Your task to perform on an android device: Go to ESPN.com Image 0: 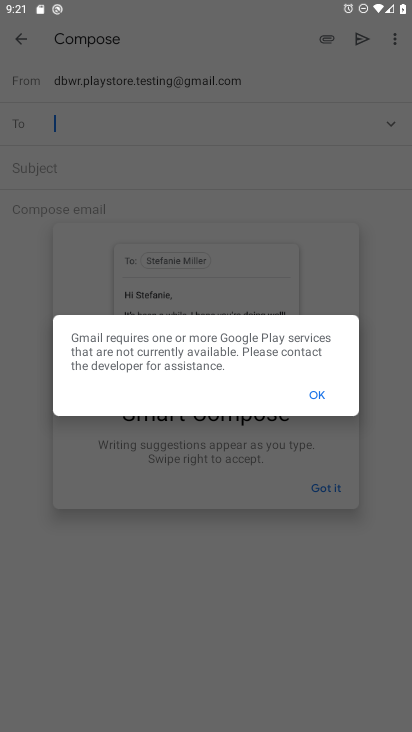
Step 0: press home button
Your task to perform on an android device: Go to ESPN.com Image 1: 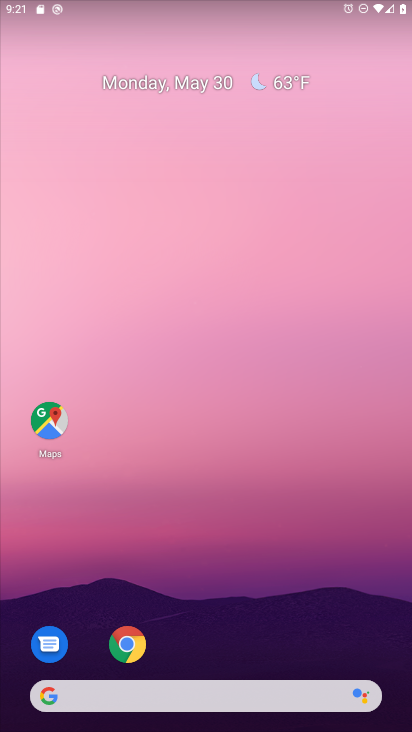
Step 1: drag from (193, 658) to (210, 106)
Your task to perform on an android device: Go to ESPN.com Image 2: 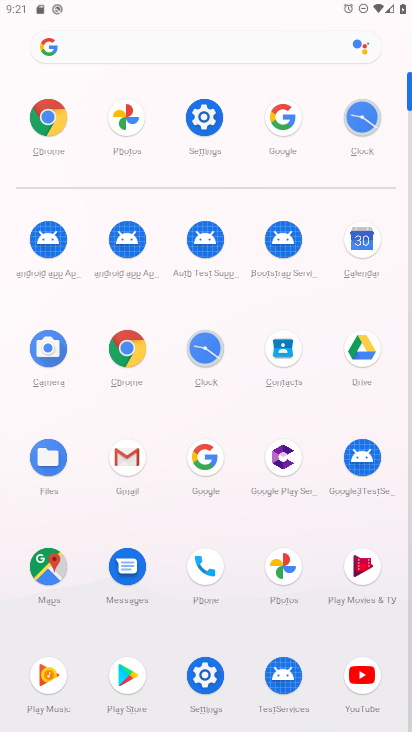
Step 2: click (286, 121)
Your task to perform on an android device: Go to ESPN.com Image 3: 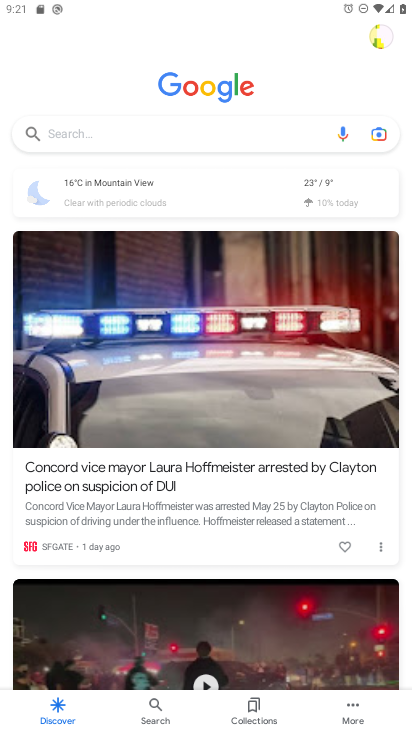
Step 3: click (132, 127)
Your task to perform on an android device: Go to ESPN.com Image 4: 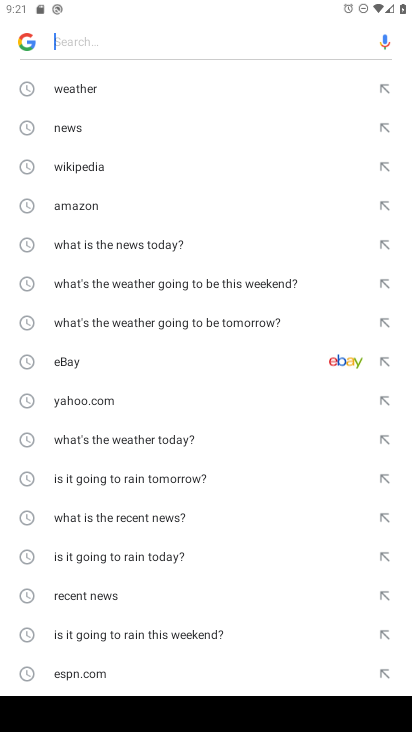
Step 4: click (78, 671)
Your task to perform on an android device: Go to ESPN.com Image 5: 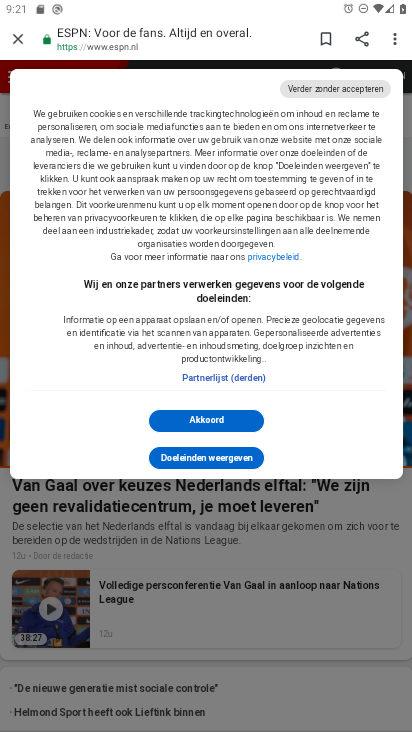
Step 5: task complete